Your task to perform on an android device: Open Chrome and go to the settings page Image 0: 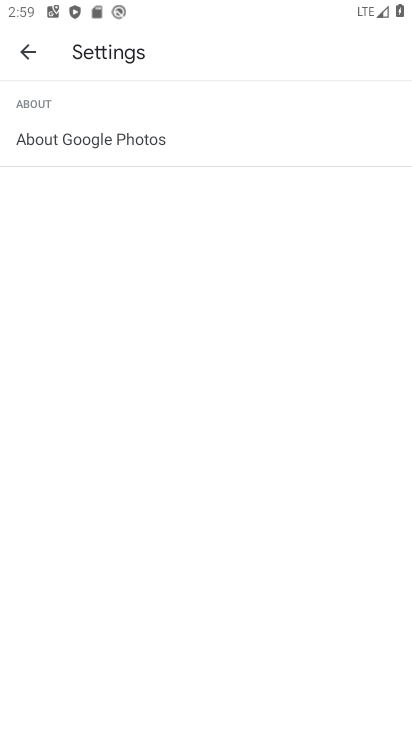
Step 0: press home button
Your task to perform on an android device: Open Chrome and go to the settings page Image 1: 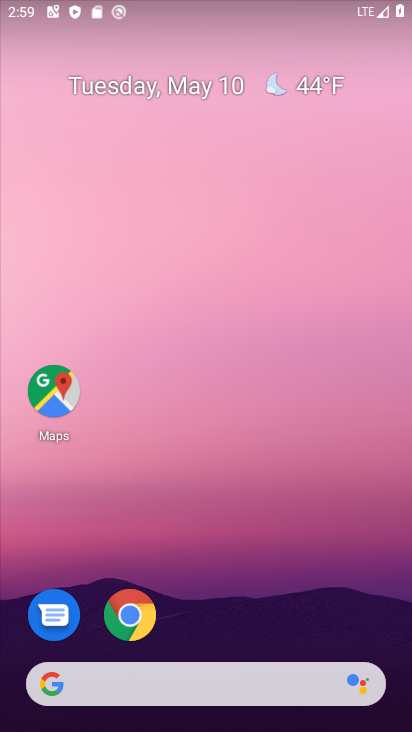
Step 1: click (128, 599)
Your task to perform on an android device: Open Chrome and go to the settings page Image 2: 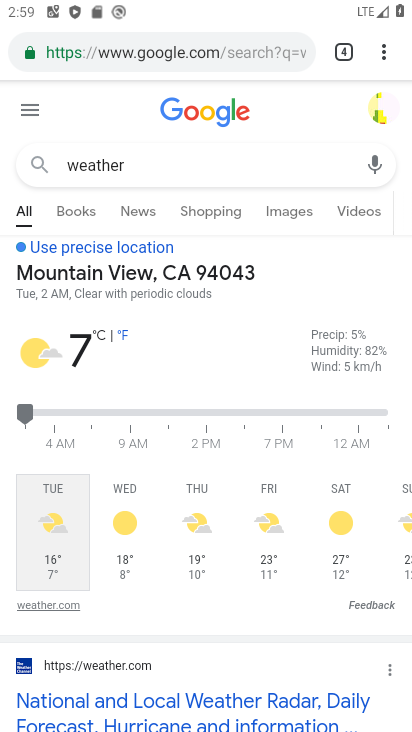
Step 2: task complete